Your task to perform on an android device: refresh tabs in the chrome app Image 0: 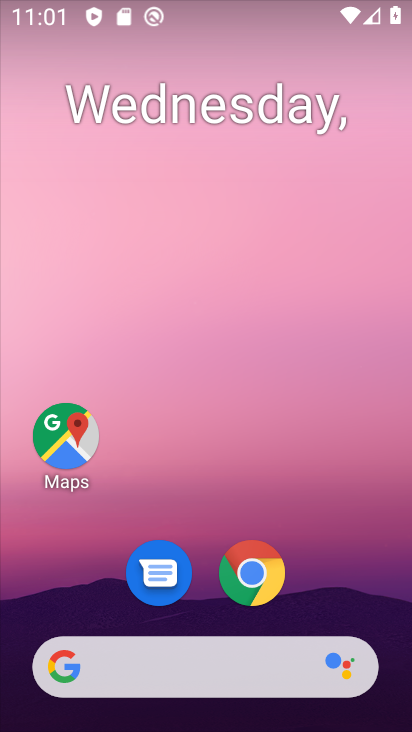
Step 0: click (270, 569)
Your task to perform on an android device: refresh tabs in the chrome app Image 1: 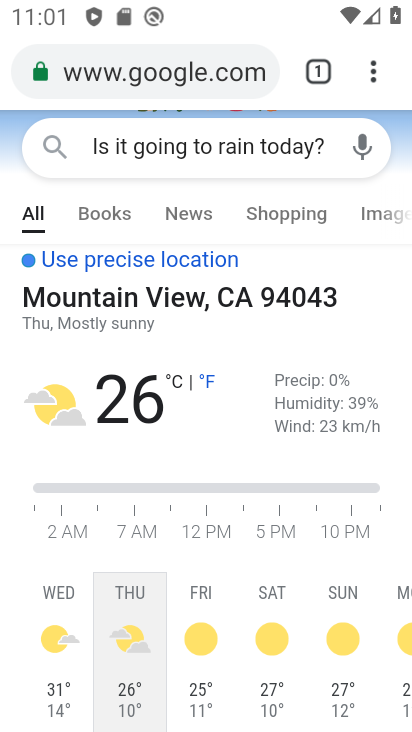
Step 1: click (373, 80)
Your task to perform on an android device: refresh tabs in the chrome app Image 2: 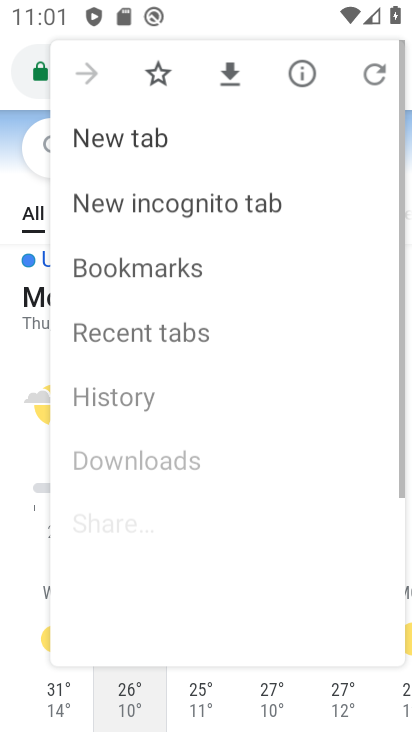
Step 2: click (373, 80)
Your task to perform on an android device: refresh tabs in the chrome app Image 3: 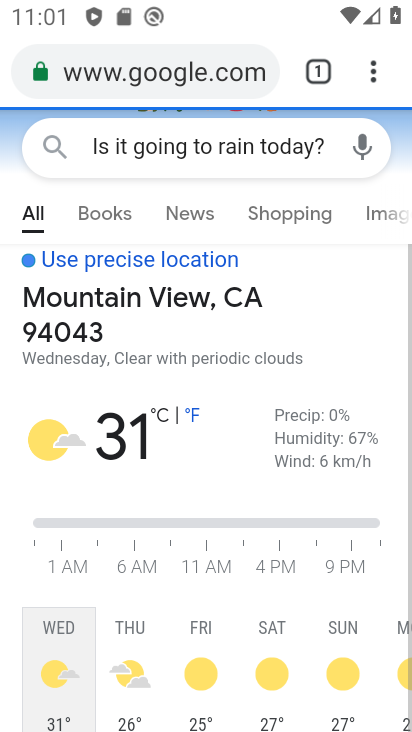
Step 3: click (375, 75)
Your task to perform on an android device: refresh tabs in the chrome app Image 4: 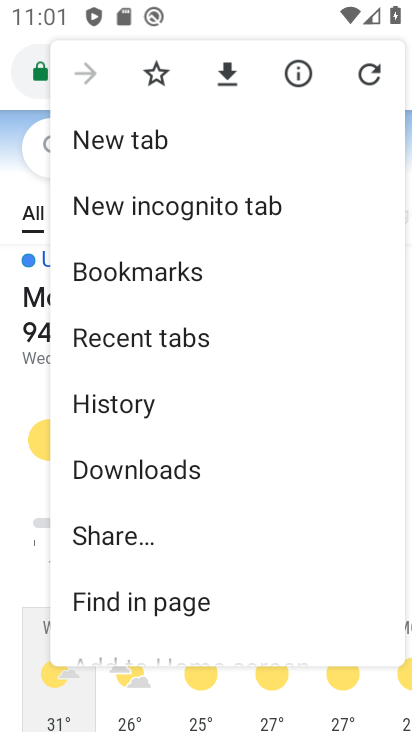
Step 4: click (374, 83)
Your task to perform on an android device: refresh tabs in the chrome app Image 5: 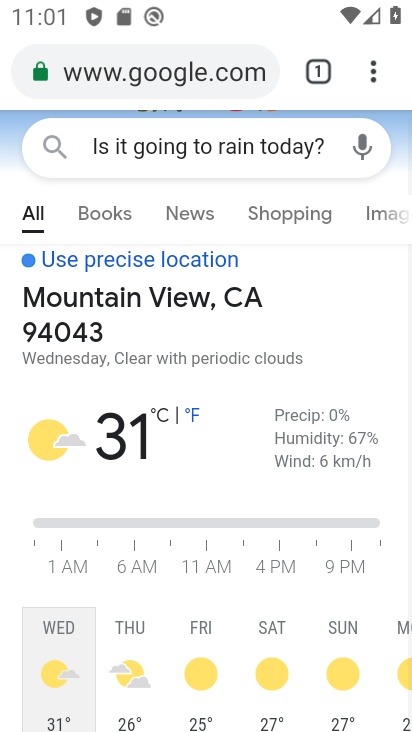
Step 5: task complete